Your task to perform on an android device: Go to Amazon Image 0: 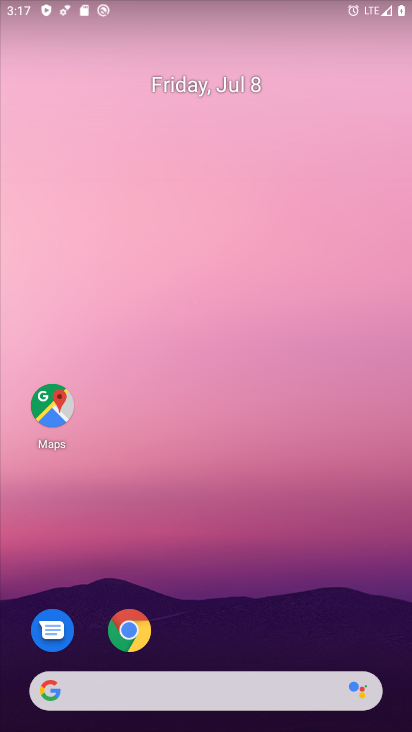
Step 0: drag from (231, 550) to (236, 278)
Your task to perform on an android device: Go to Amazon Image 1: 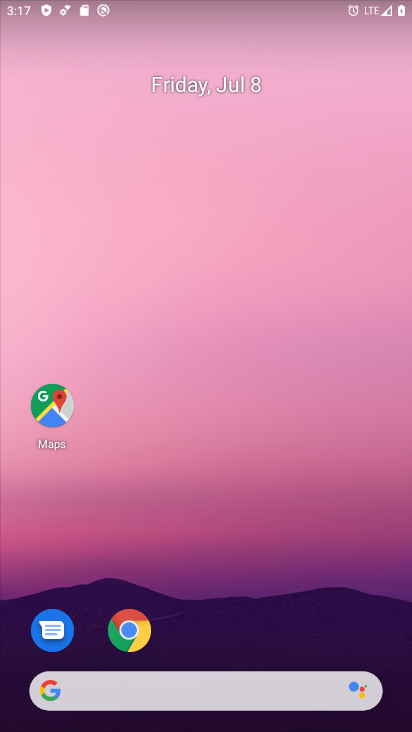
Step 1: click (242, 700)
Your task to perform on an android device: Go to Amazon Image 2: 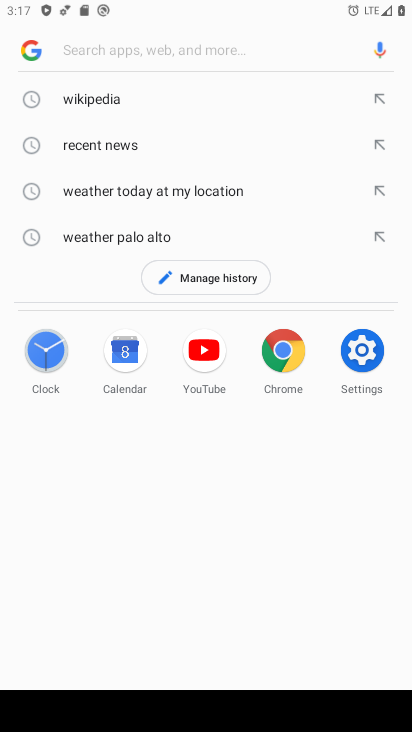
Step 2: type "amazon.com"
Your task to perform on an android device: Go to Amazon Image 3: 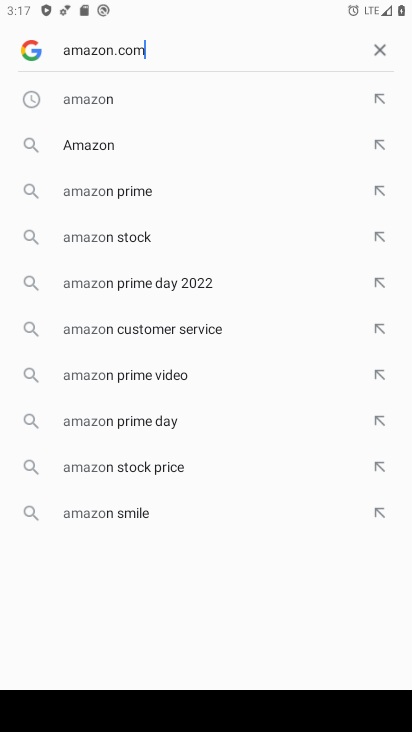
Step 3: press enter
Your task to perform on an android device: Go to Amazon Image 4: 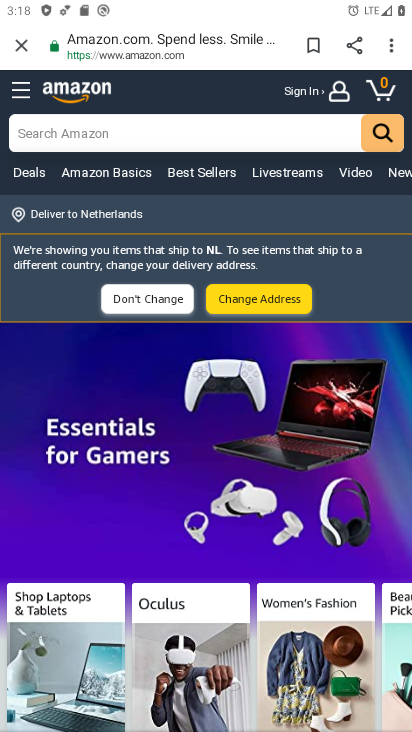
Step 4: task complete